Your task to perform on an android device: What's on my calendar today? Image 0: 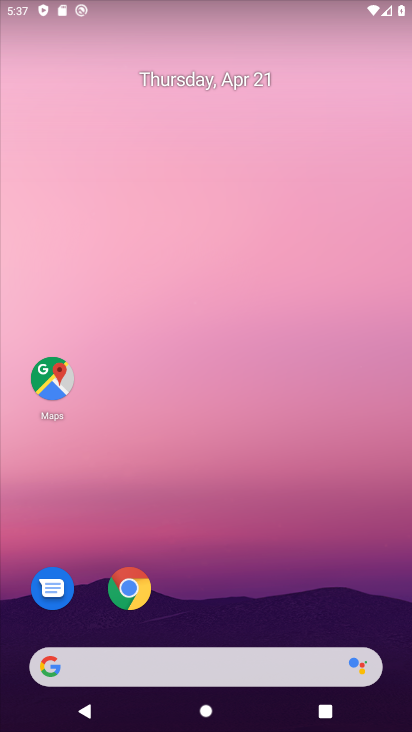
Step 0: drag from (215, 605) to (138, 128)
Your task to perform on an android device: What's on my calendar today? Image 1: 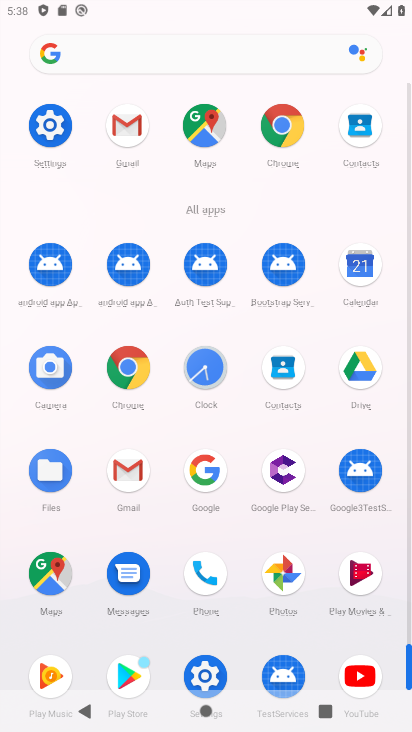
Step 1: click (378, 281)
Your task to perform on an android device: What's on my calendar today? Image 2: 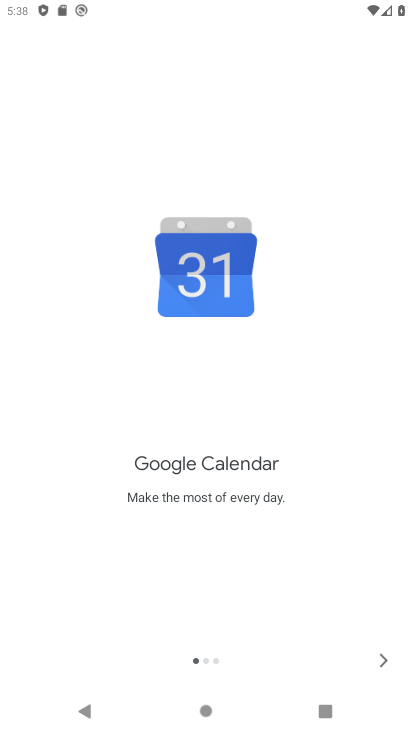
Step 2: click (374, 654)
Your task to perform on an android device: What's on my calendar today? Image 3: 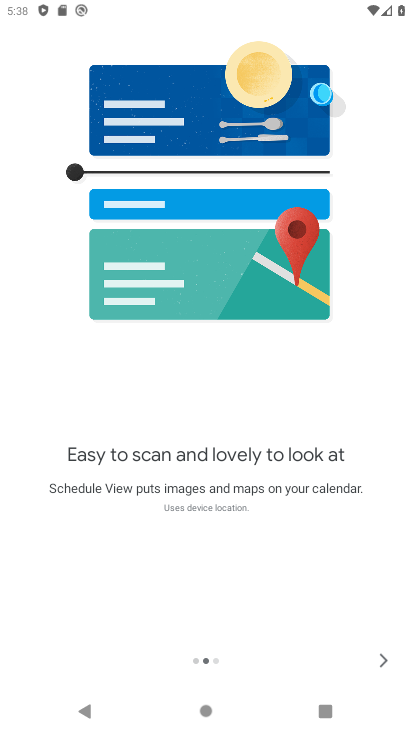
Step 3: click (375, 654)
Your task to perform on an android device: What's on my calendar today? Image 4: 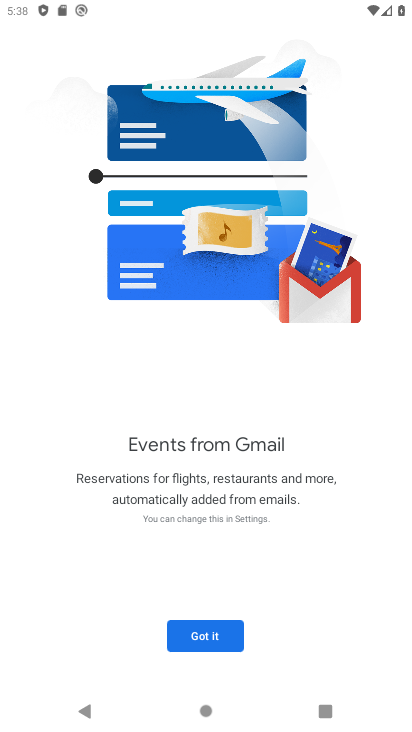
Step 4: click (216, 634)
Your task to perform on an android device: What's on my calendar today? Image 5: 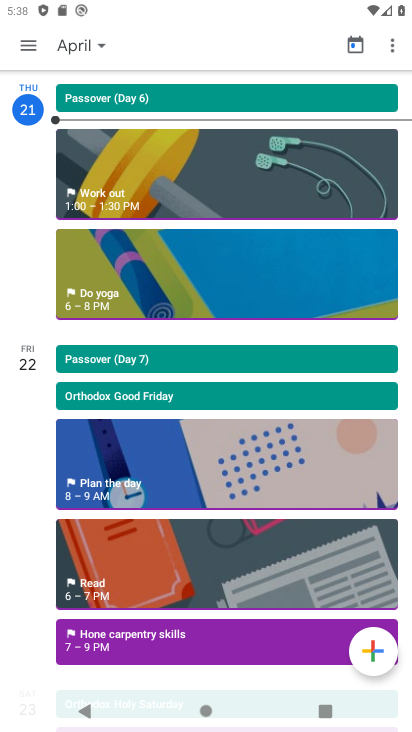
Step 5: task complete